Your task to perform on an android device: turn on priority inbox in the gmail app Image 0: 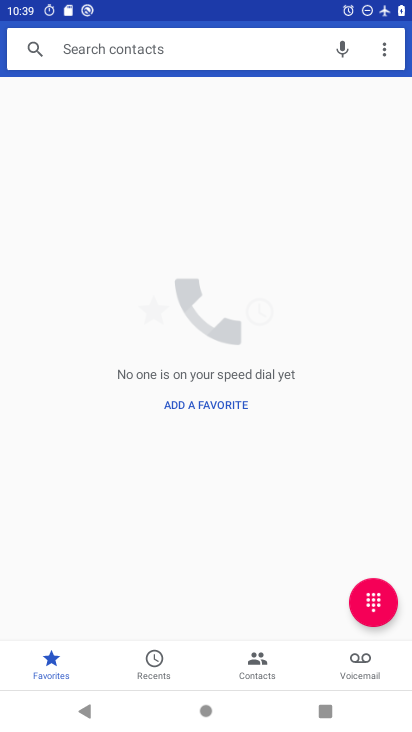
Step 0: press back button
Your task to perform on an android device: turn on priority inbox in the gmail app Image 1: 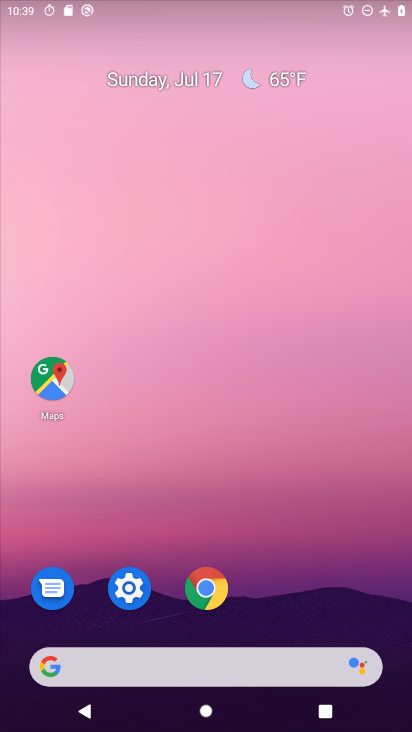
Step 1: drag from (169, 412) to (169, 172)
Your task to perform on an android device: turn on priority inbox in the gmail app Image 2: 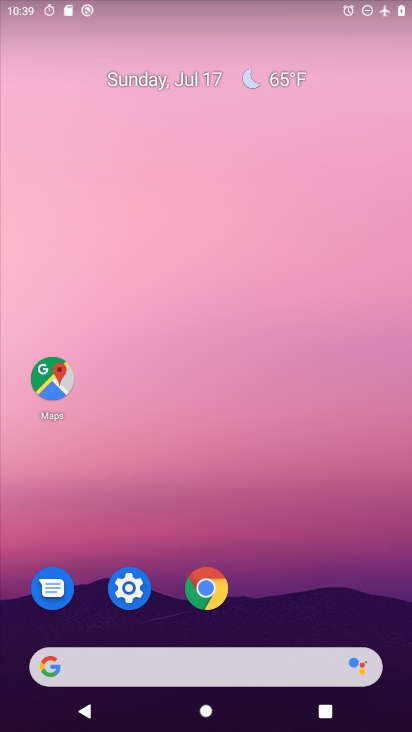
Step 2: drag from (211, 591) to (214, 216)
Your task to perform on an android device: turn on priority inbox in the gmail app Image 3: 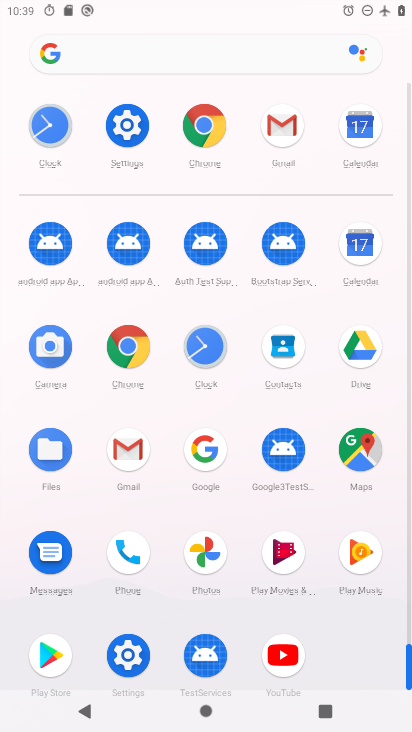
Step 3: click (123, 452)
Your task to perform on an android device: turn on priority inbox in the gmail app Image 4: 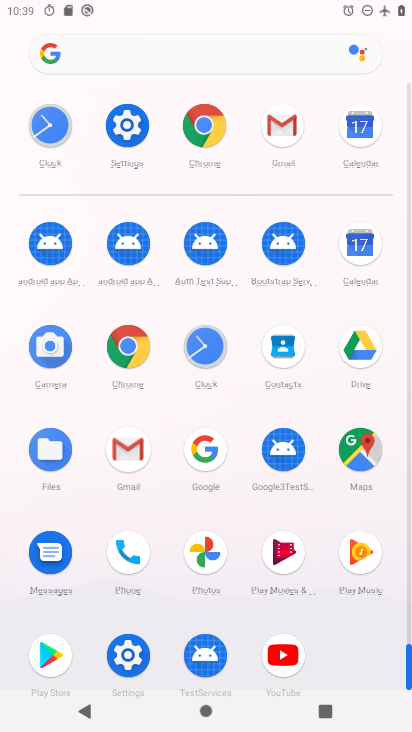
Step 4: click (123, 452)
Your task to perform on an android device: turn on priority inbox in the gmail app Image 5: 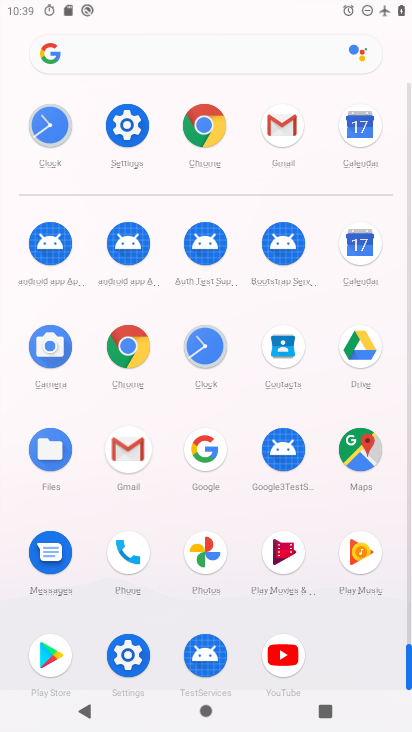
Step 5: click (135, 451)
Your task to perform on an android device: turn on priority inbox in the gmail app Image 6: 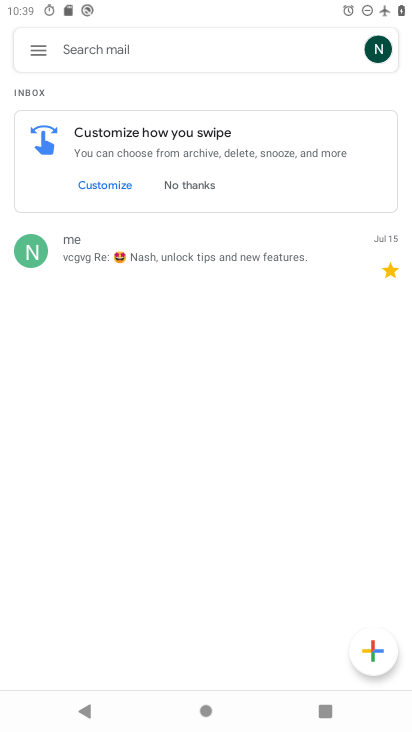
Step 6: drag from (35, 51) to (103, 462)
Your task to perform on an android device: turn on priority inbox in the gmail app Image 7: 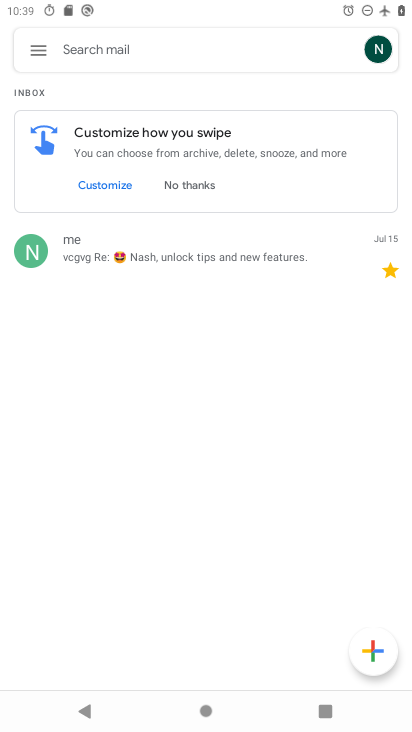
Step 7: drag from (38, 58) to (90, 244)
Your task to perform on an android device: turn on priority inbox in the gmail app Image 8: 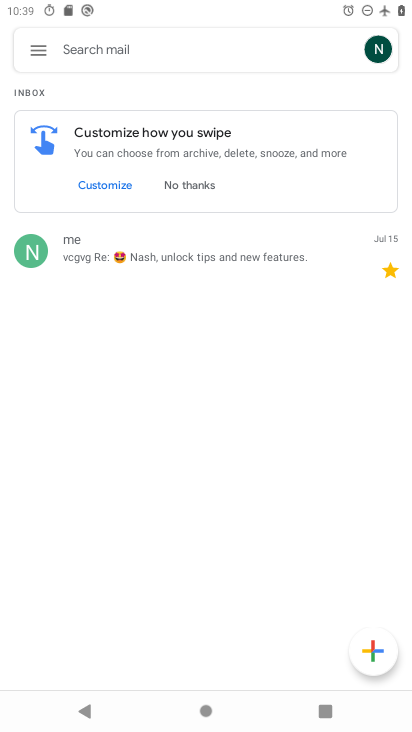
Step 8: click (36, 55)
Your task to perform on an android device: turn on priority inbox in the gmail app Image 9: 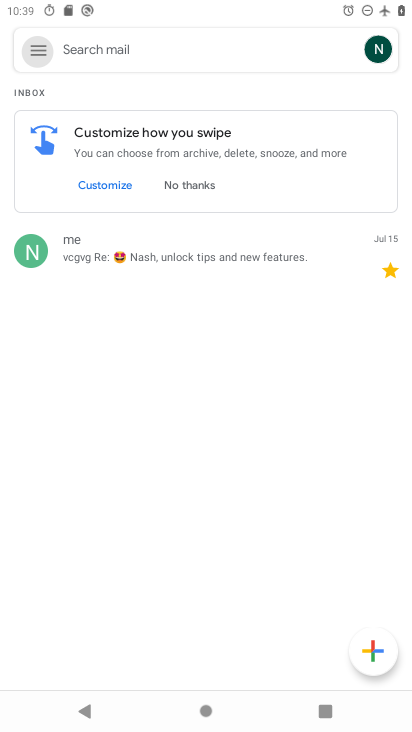
Step 9: click (38, 60)
Your task to perform on an android device: turn on priority inbox in the gmail app Image 10: 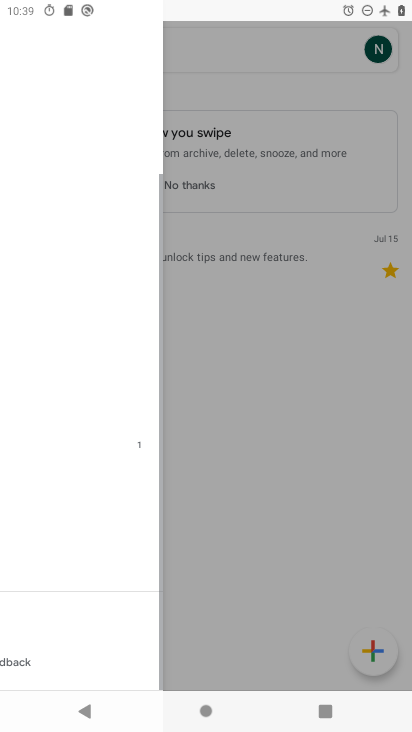
Step 10: drag from (38, 60) to (318, 568)
Your task to perform on an android device: turn on priority inbox in the gmail app Image 11: 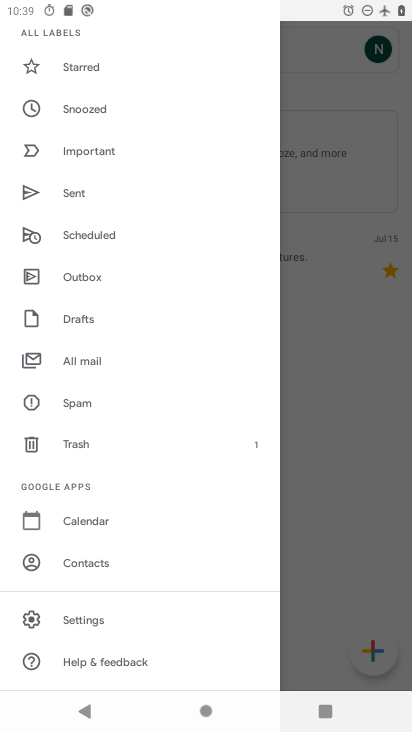
Step 11: click (83, 621)
Your task to perform on an android device: turn on priority inbox in the gmail app Image 12: 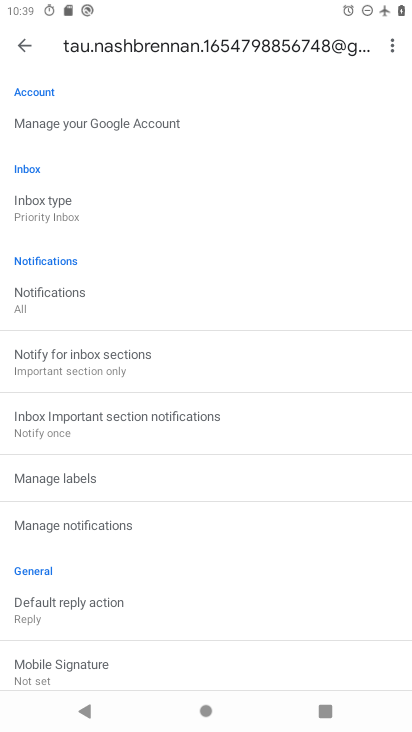
Step 12: click (30, 211)
Your task to perform on an android device: turn on priority inbox in the gmail app Image 13: 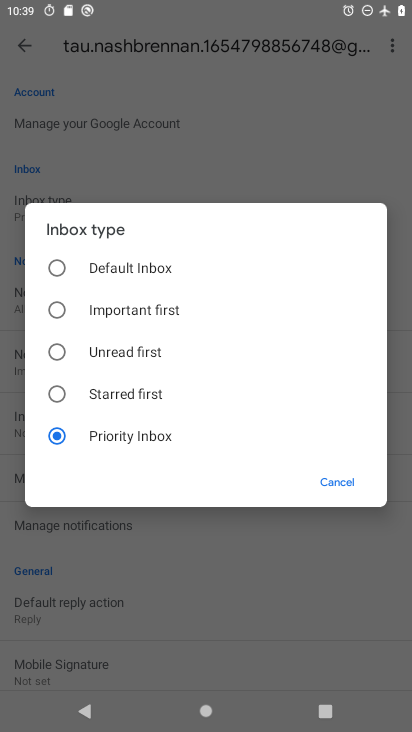
Step 13: click (348, 493)
Your task to perform on an android device: turn on priority inbox in the gmail app Image 14: 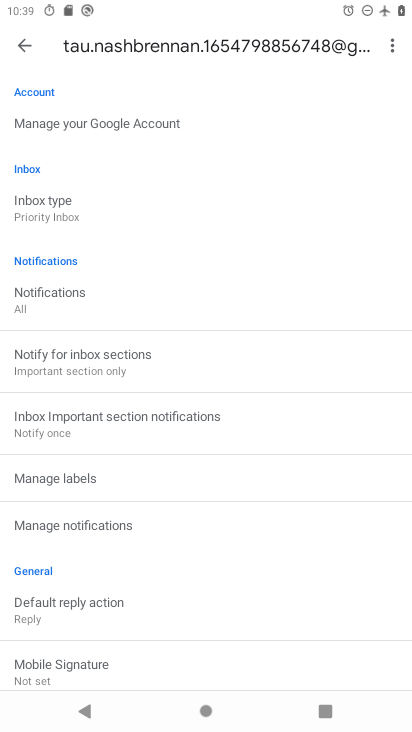
Step 14: task complete